Your task to perform on an android device: Go to Google maps Image 0: 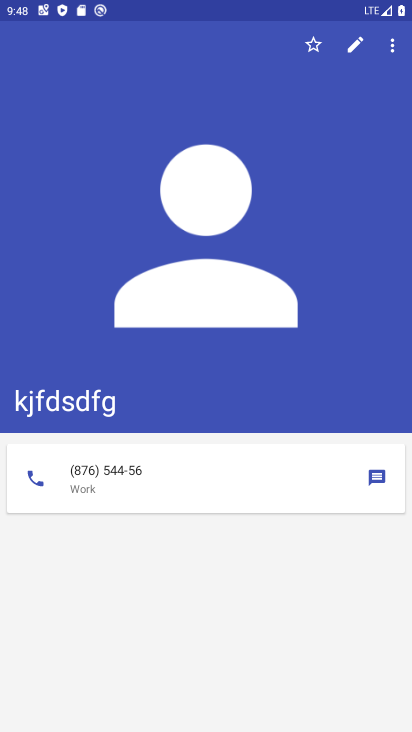
Step 0: press home button
Your task to perform on an android device: Go to Google maps Image 1: 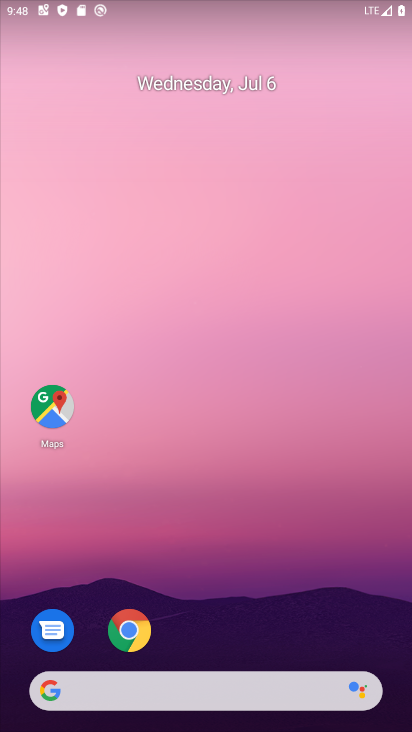
Step 1: click (48, 407)
Your task to perform on an android device: Go to Google maps Image 2: 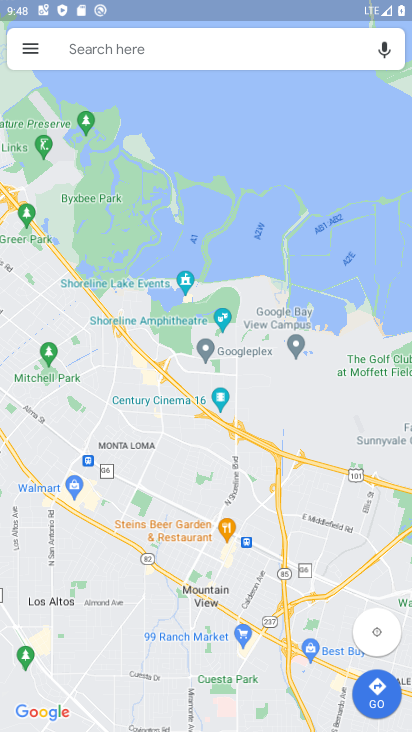
Step 2: task complete